Your task to perform on an android device: turn off smart reply in the gmail app Image 0: 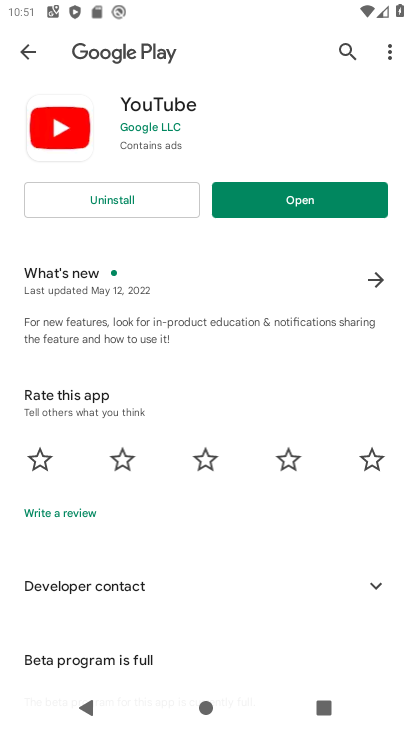
Step 0: press home button
Your task to perform on an android device: turn off smart reply in the gmail app Image 1: 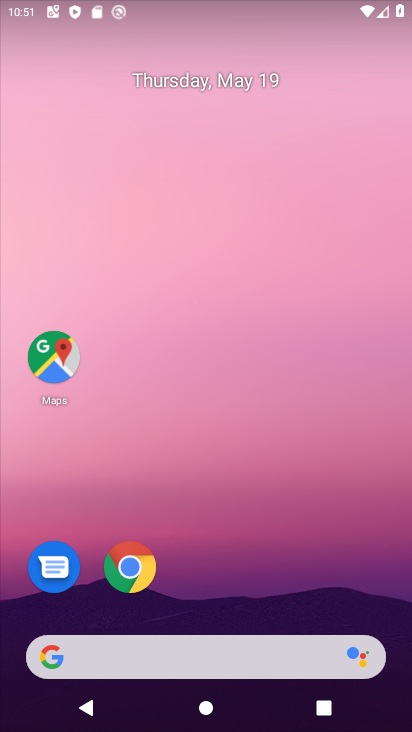
Step 1: drag from (344, 594) to (320, 59)
Your task to perform on an android device: turn off smart reply in the gmail app Image 2: 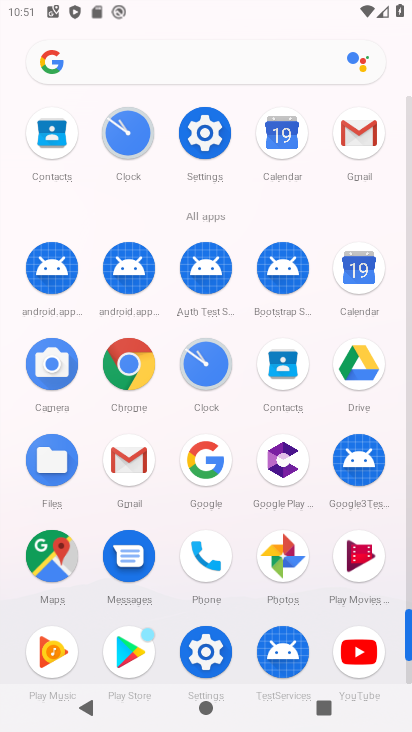
Step 2: click (125, 460)
Your task to perform on an android device: turn off smart reply in the gmail app Image 3: 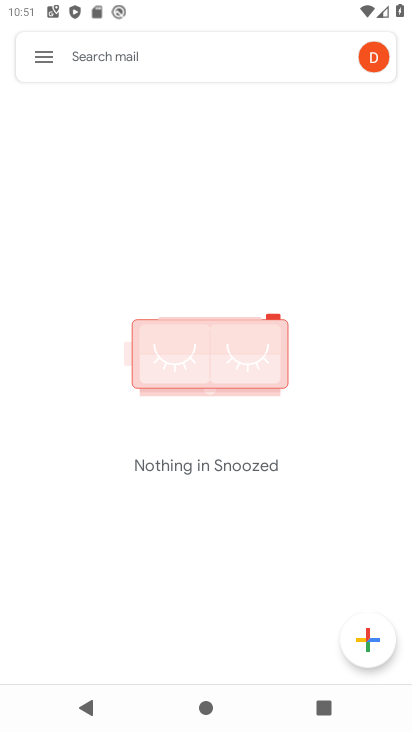
Step 3: click (46, 61)
Your task to perform on an android device: turn off smart reply in the gmail app Image 4: 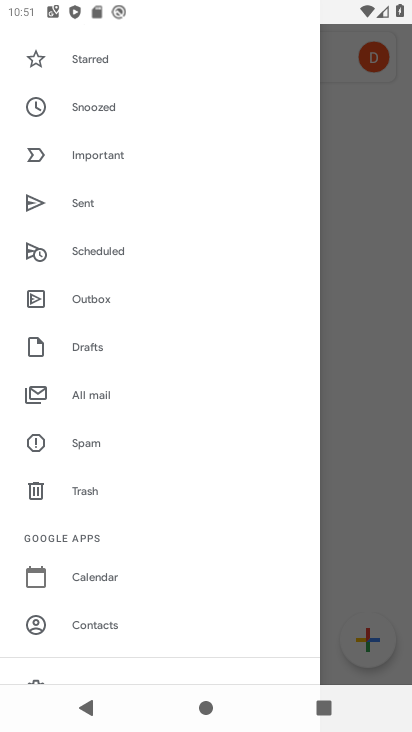
Step 4: drag from (156, 595) to (156, 220)
Your task to perform on an android device: turn off smart reply in the gmail app Image 5: 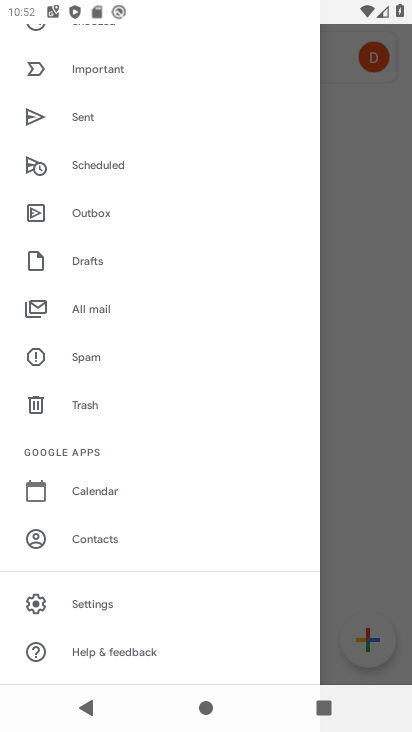
Step 5: click (93, 597)
Your task to perform on an android device: turn off smart reply in the gmail app Image 6: 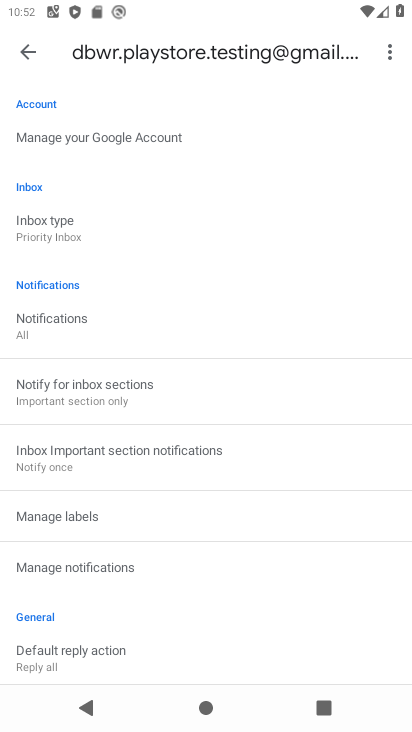
Step 6: drag from (206, 627) to (189, 288)
Your task to perform on an android device: turn off smart reply in the gmail app Image 7: 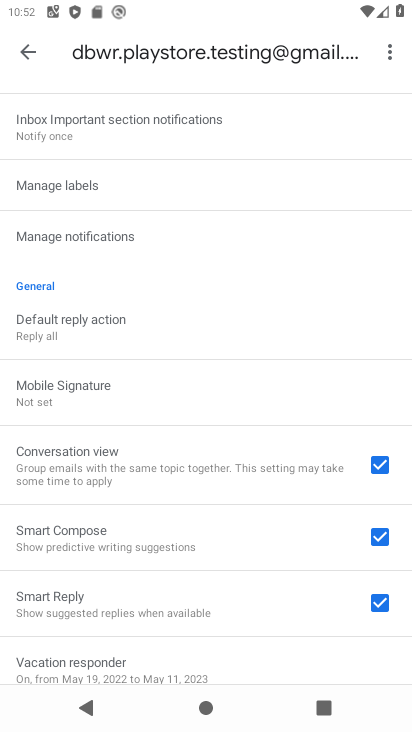
Step 7: click (381, 598)
Your task to perform on an android device: turn off smart reply in the gmail app Image 8: 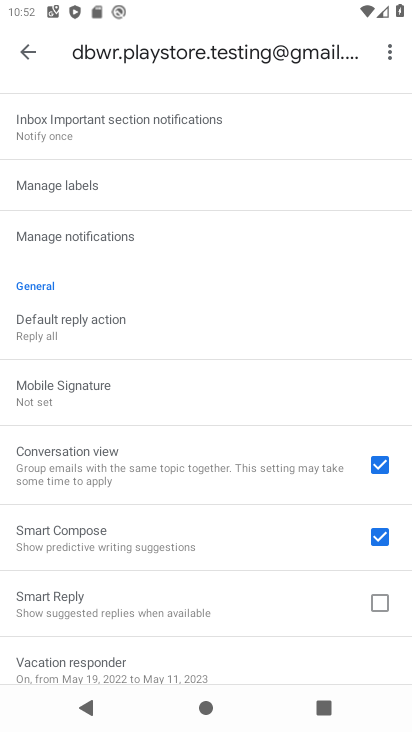
Step 8: task complete